Your task to perform on an android device: visit the assistant section in the google photos Image 0: 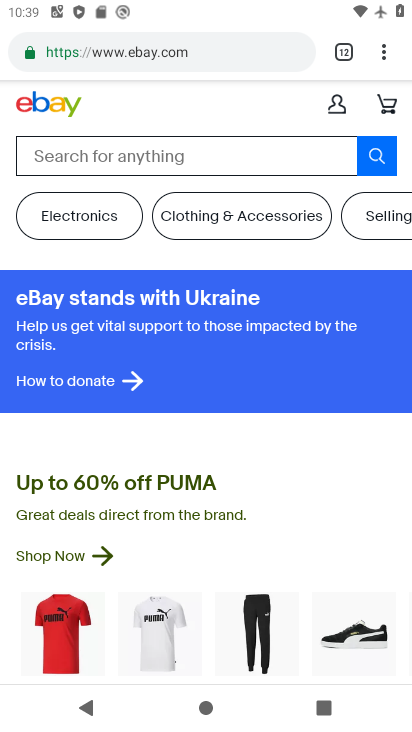
Step 0: press home button
Your task to perform on an android device: visit the assistant section in the google photos Image 1: 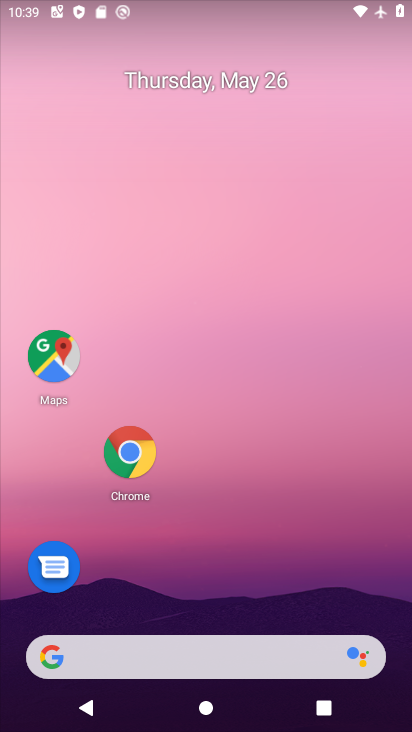
Step 1: drag from (217, 651) to (386, 107)
Your task to perform on an android device: visit the assistant section in the google photos Image 2: 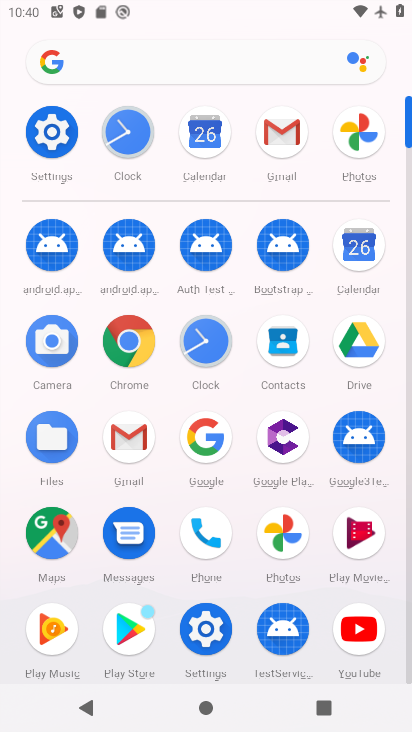
Step 2: click (289, 529)
Your task to perform on an android device: visit the assistant section in the google photos Image 3: 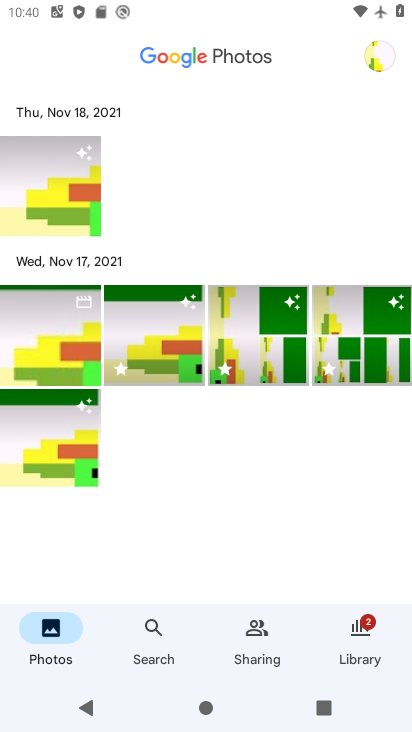
Step 3: click (160, 654)
Your task to perform on an android device: visit the assistant section in the google photos Image 4: 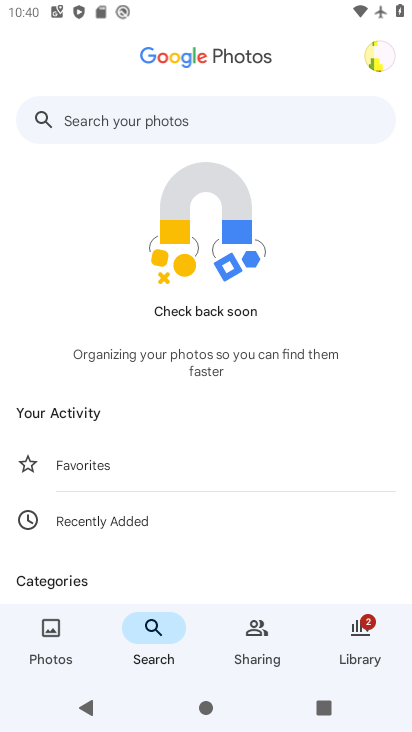
Step 4: task complete